Your task to perform on an android device: turn off improve location accuracy Image 0: 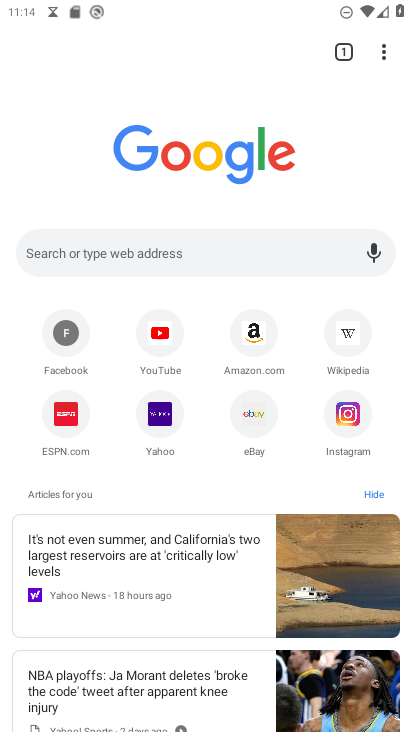
Step 0: press home button
Your task to perform on an android device: turn off improve location accuracy Image 1: 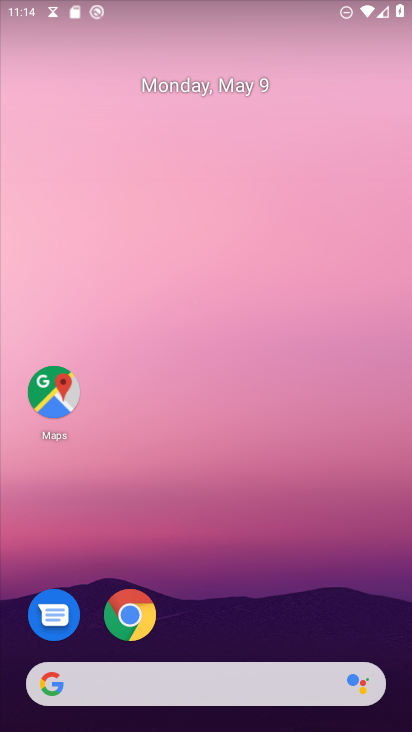
Step 1: drag from (196, 724) to (183, 99)
Your task to perform on an android device: turn off improve location accuracy Image 2: 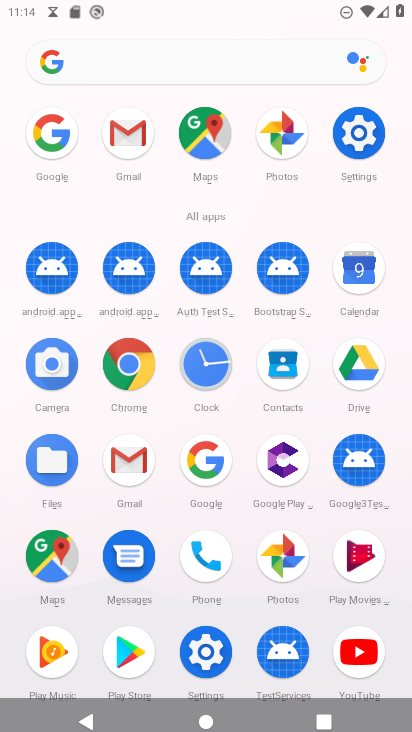
Step 2: click (357, 136)
Your task to perform on an android device: turn off improve location accuracy Image 3: 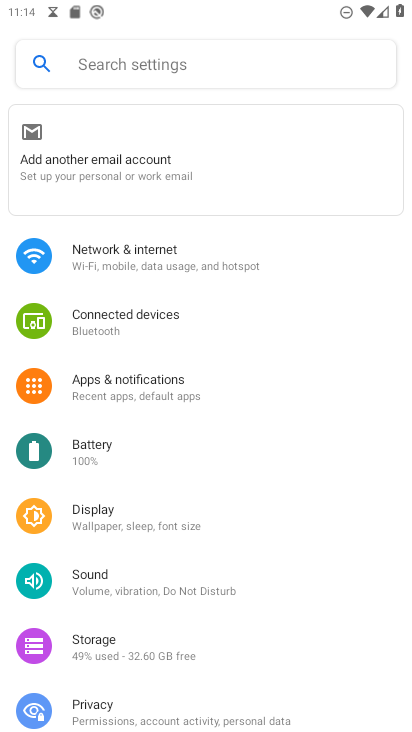
Step 3: drag from (115, 686) to (140, 327)
Your task to perform on an android device: turn off improve location accuracy Image 4: 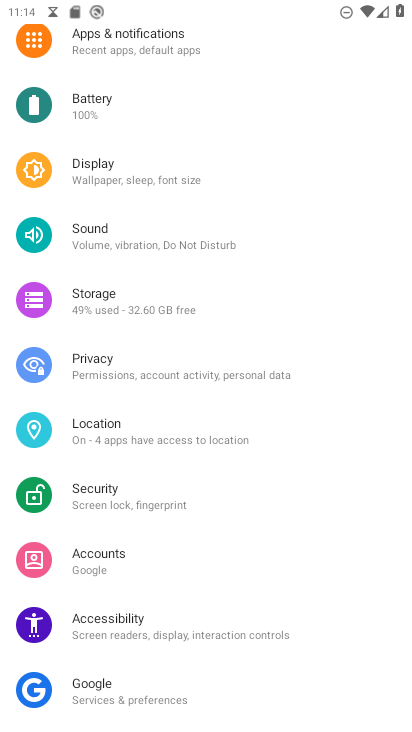
Step 4: click (107, 434)
Your task to perform on an android device: turn off improve location accuracy Image 5: 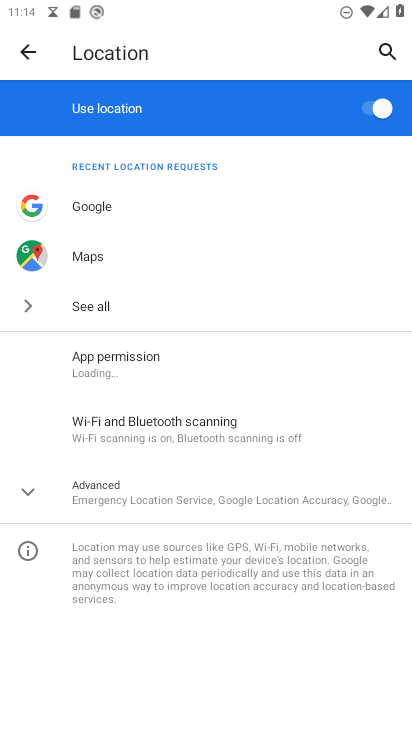
Step 5: click (104, 500)
Your task to perform on an android device: turn off improve location accuracy Image 6: 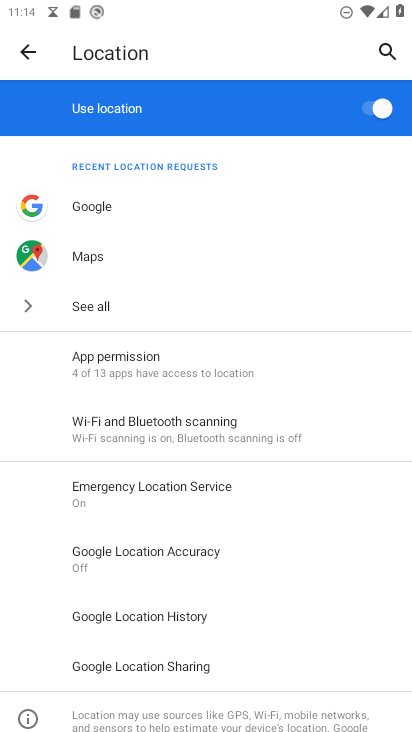
Step 6: click (159, 555)
Your task to perform on an android device: turn off improve location accuracy Image 7: 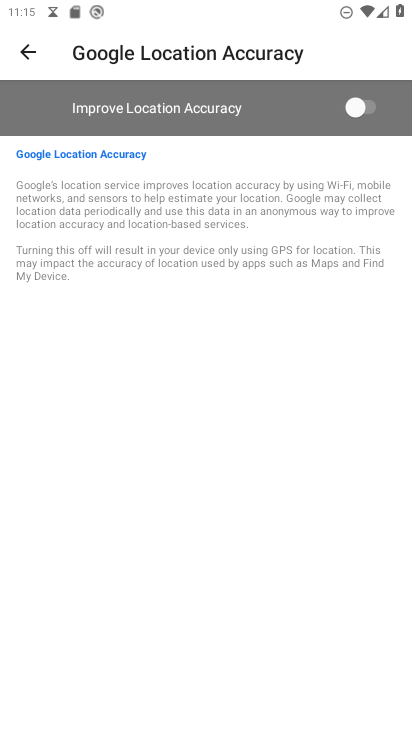
Step 7: task complete